Your task to perform on an android device: Show me productivity apps on the Play Store Image 0: 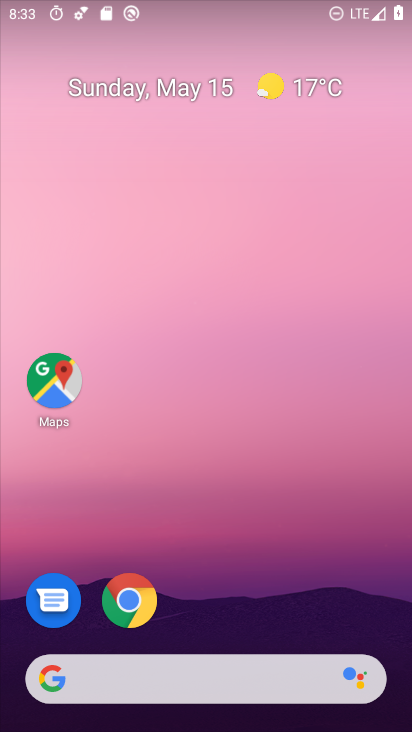
Step 0: drag from (231, 604) to (137, 173)
Your task to perform on an android device: Show me productivity apps on the Play Store Image 1: 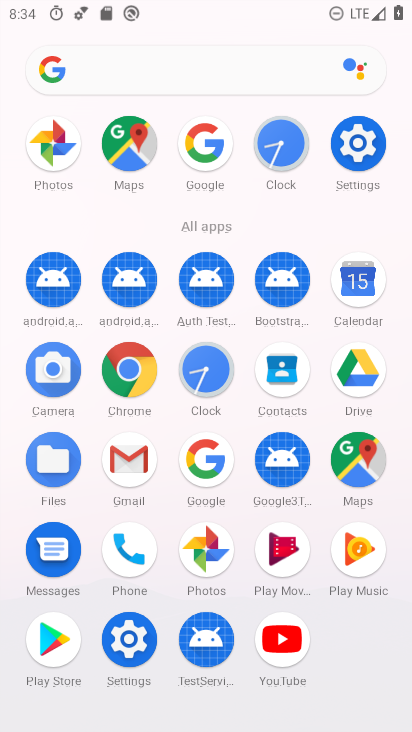
Step 1: click (53, 637)
Your task to perform on an android device: Show me productivity apps on the Play Store Image 2: 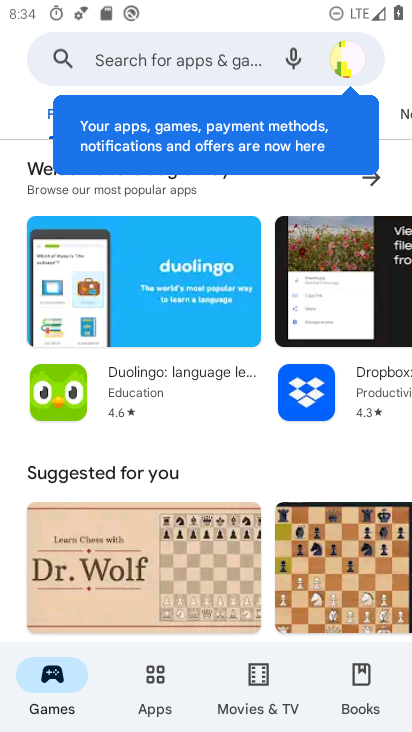
Step 2: click (158, 675)
Your task to perform on an android device: Show me productivity apps on the Play Store Image 3: 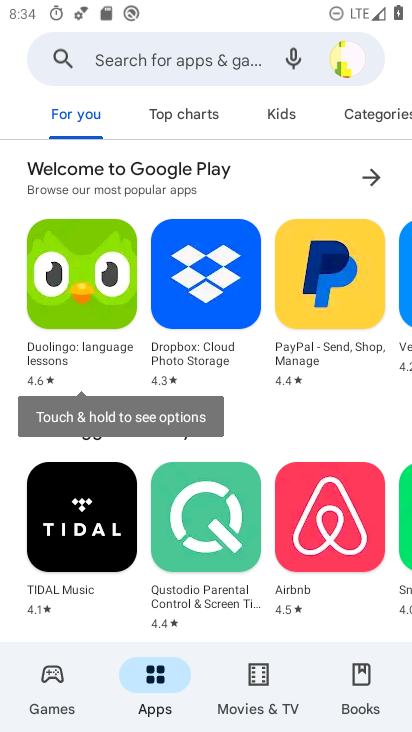
Step 3: click (369, 119)
Your task to perform on an android device: Show me productivity apps on the Play Store Image 4: 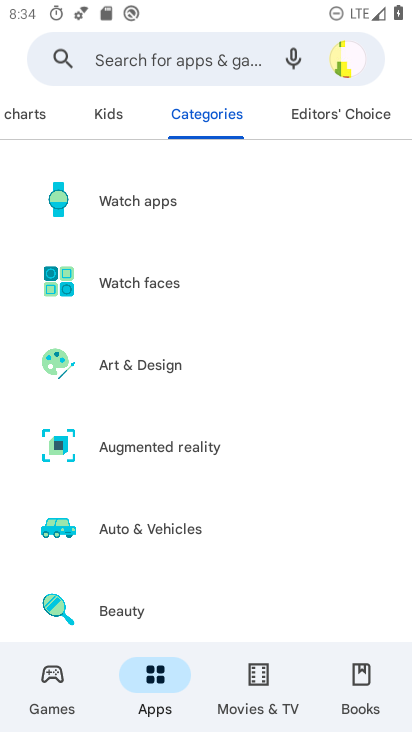
Step 4: drag from (158, 400) to (190, 293)
Your task to perform on an android device: Show me productivity apps on the Play Store Image 5: 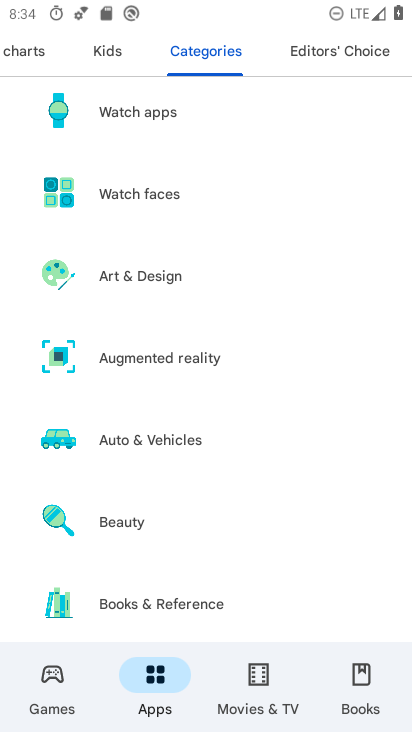
Step 5: drag from (126, 406) to (184, 304)
Your task to perform on an android device: Show me productivity apps on the Play Store Image 6: 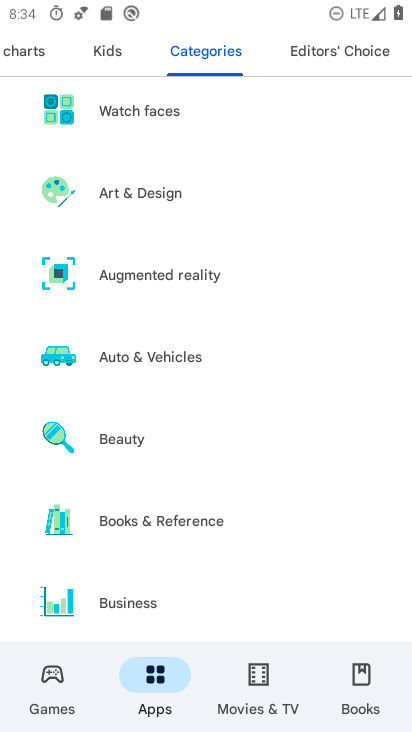
Step 6: drag from (117, 403) to (127, 299)
Your task to perform on an android device: Show me productivity apps on the Play Store Image 7: 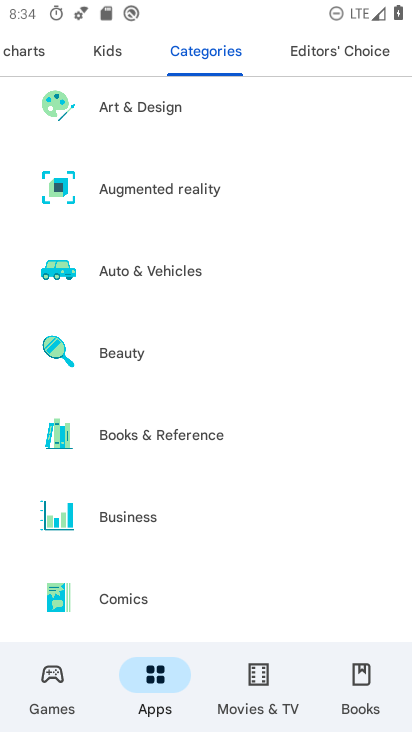
Step 7: drag from (110, 391) to (159, 281)
Your task to perform on an android device: Show me productivity apps on the Play Store Image 8: 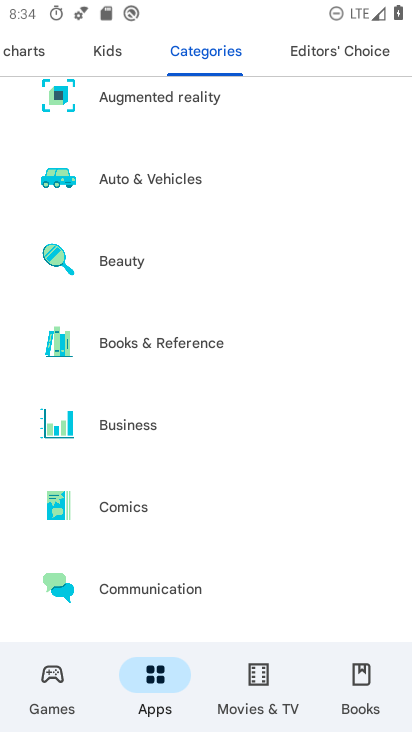
Step 8: drag from (113, 385) to (183, 269)
Your task to perform on an android device: Show me productivity apps on the Play Store Image 9: 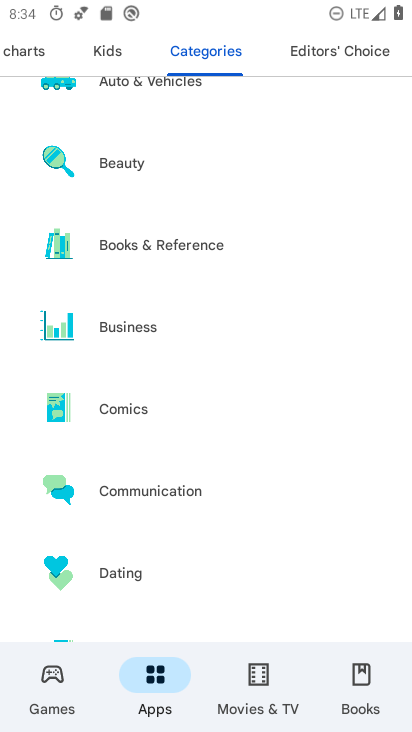
Step 9: drag from (112, 372) to (164, 273)
Your task to perform on an android device: Show me productivity apps on the Play Store Image 10: 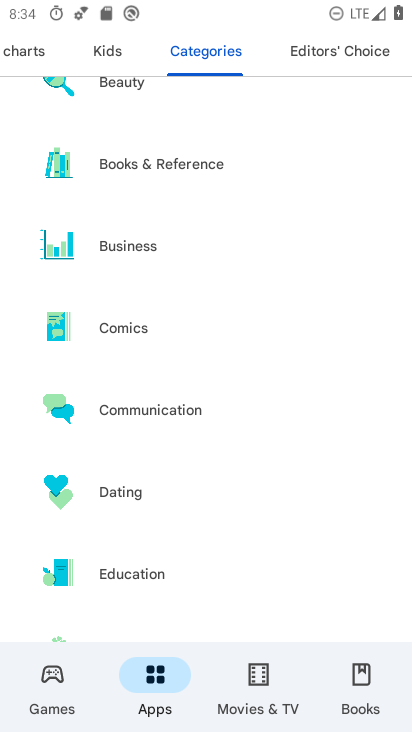
Step 10: drag from (96, 374) to (161, 280)
Your task to perform on an android device: Show me productivity apps on the Play Store Image 11: 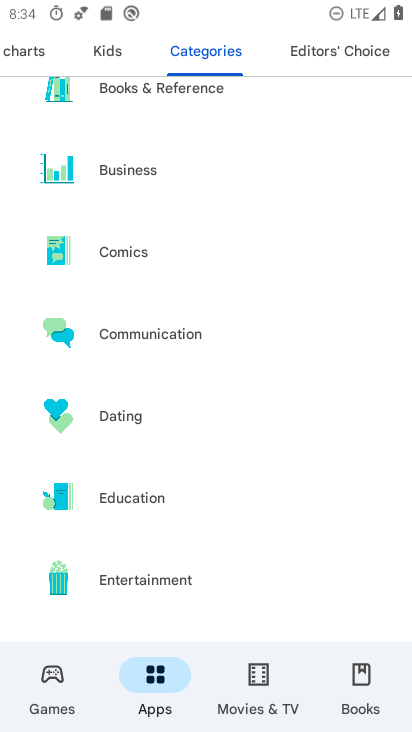
Step 11: drag from (92, 363) to (151, 279)
Your task to perform on an android device: Show me productivity apps on the Play Store Image 12: 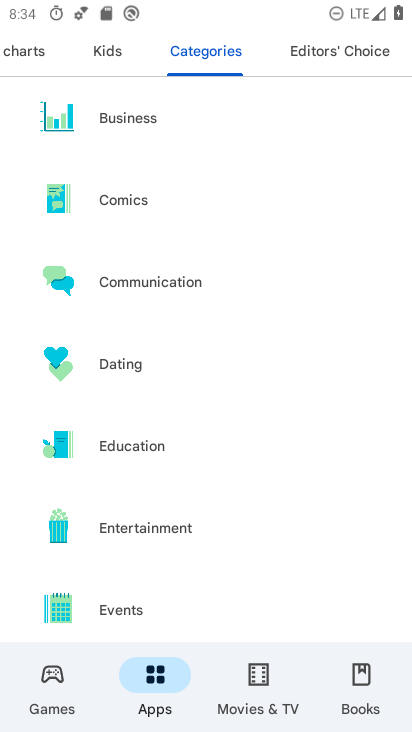
Step 12: drag from (71, 405) to (136, 302)
Your task to perform on an android device: Show me productivity apps on the Play Store Image 13: 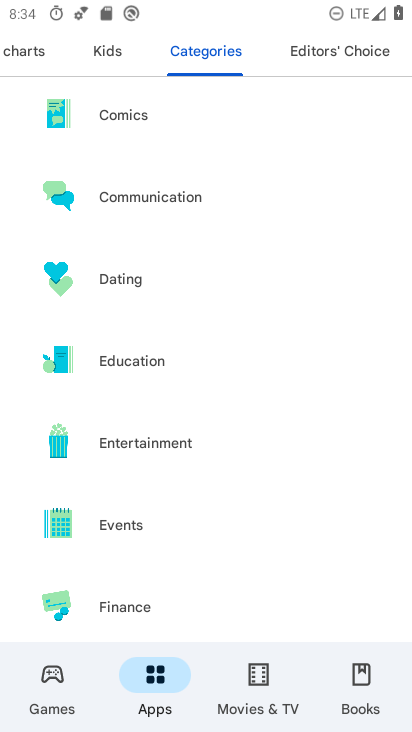
Step 13: drag from (59, 408) to (140, 308)
Your task to perform on an android device: Show me productivity apps on the Play Store Image 14: 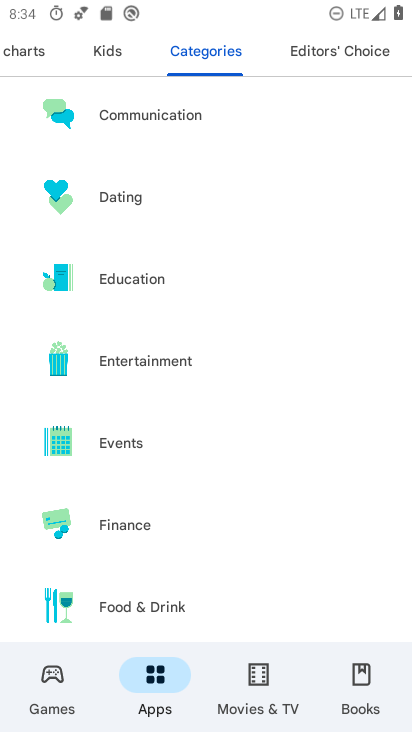
Step 14: drag from (65, 402) to (145, 302)
Your task to perform on an android device: Show me productivity apps on the Play Store Image 15: 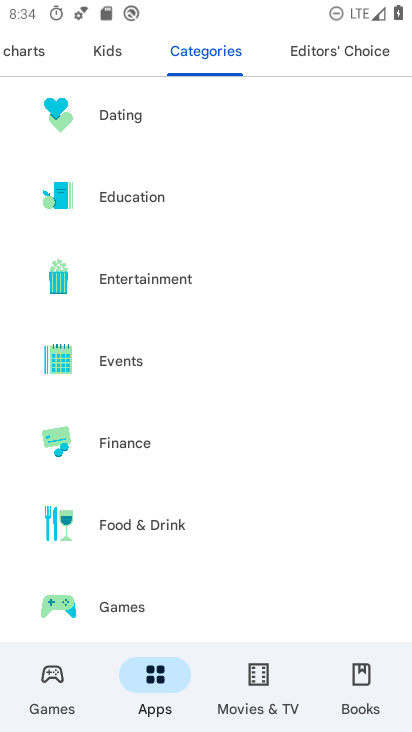
Step 15: drag from (55, 399) to (147, 297)
Your task to perform on an android device: Show me productivity apps on the Play Store Image 16: 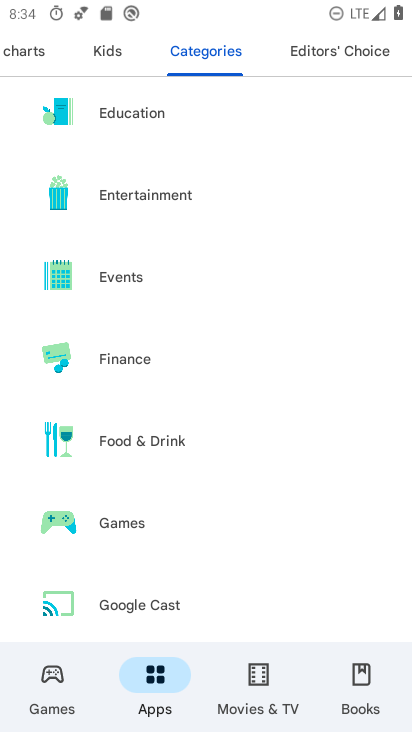
Step 16: drag from (57, 398) to (158, 292)
Your task to perform on an android device: Show me productivity apps on the Play Store Image 17: 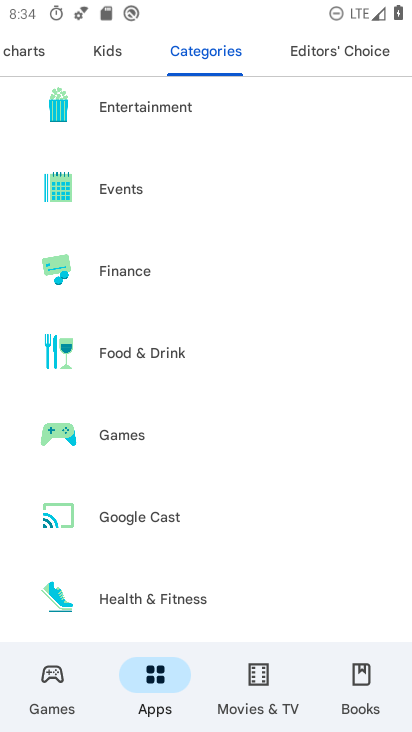
Step 17: drag from (59, 391) to (164, 282)
Your task to perform on an android device: Show me productivity apps on the Play Store Image 18: 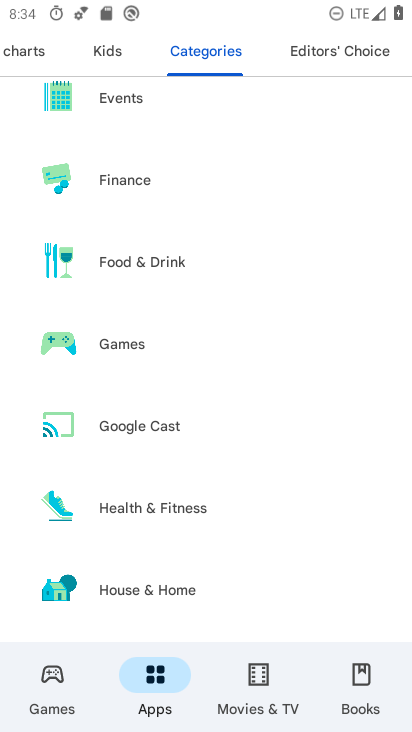
Step 18: drag from (65, 381) to (169, 265)
Your task to perform on an android device: Show me productivity apps on the Play Store Image 19: 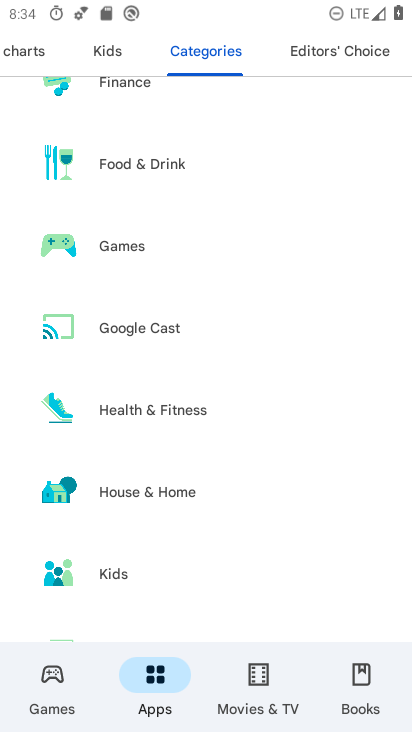
Step 19: drag from (61, 370) to (124, 270)
Your task to perform on an android device: Show me productivity apps on the Play Store Image 20: 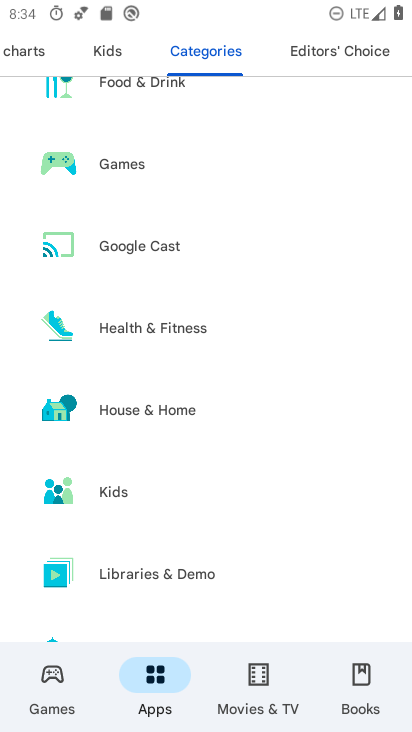
Step 20: drag from (59, 371) to (158, 253)
Your task to perform on an android device: Show me productivity apps on the Play Store Image 21: 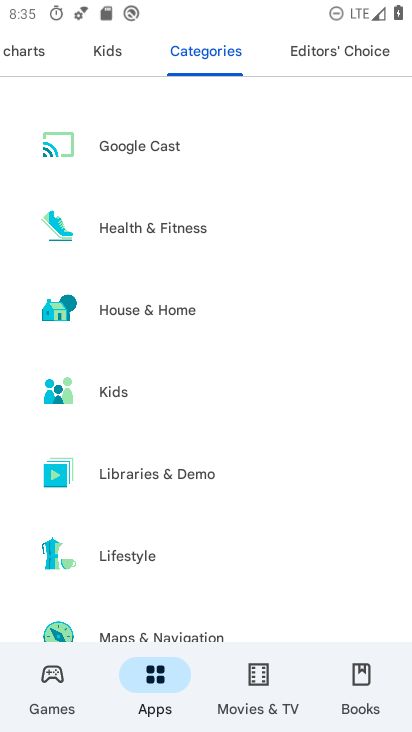
Step 21: drag from (63, 351) to (148, 234)
Your task to perform on an android device: Show me productivity apps on the Play Store Image 22: 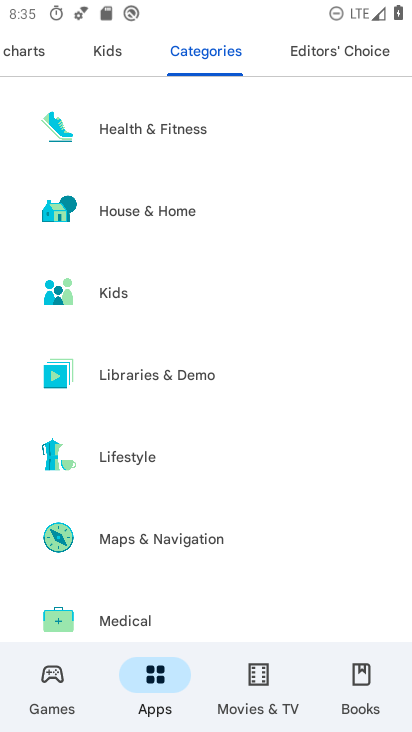
Step 22: drag from (62, 251) to (139, 147)
Your task to perform on an android device: Show me productivity apps on the Play Store Image 23: 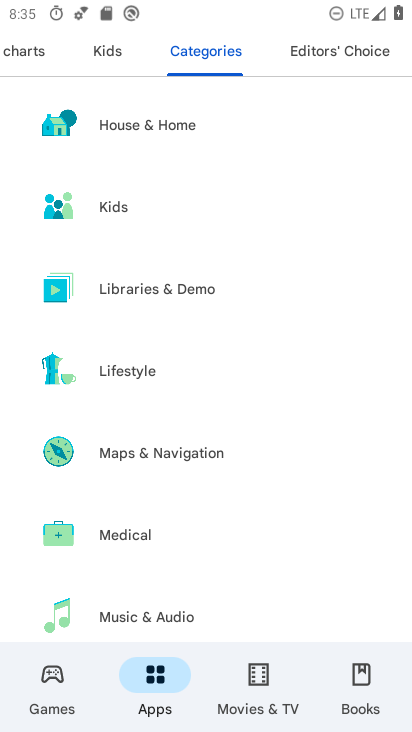
Step 23: drag from (62, 250) to (124, 175)
Your task to perform on an android device: Show me productivity apps on the Play Store Image 24: 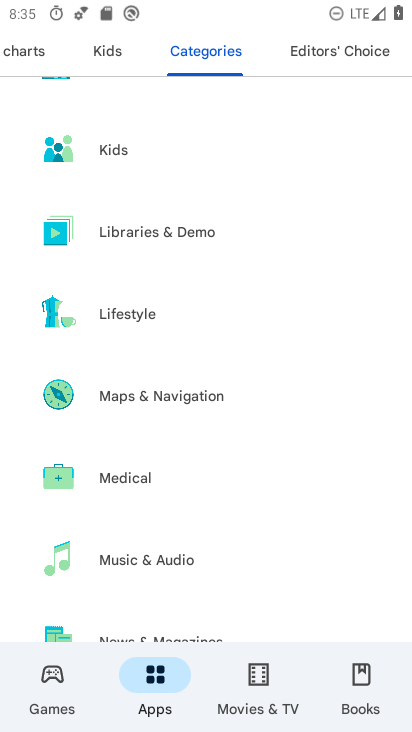
Step 24: drag from (59, 260) to (156, 151)
Your task to perform on an android device: Show me productivity apps on the Play Store Image 25: 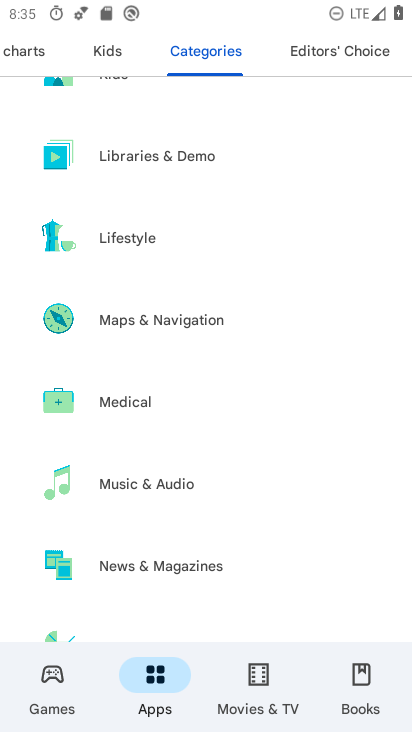
Step 25: drag from (51, 280) to (149, 161)
Your task to perform on an android device: Show me productivity apps on the Play Store Image 26: 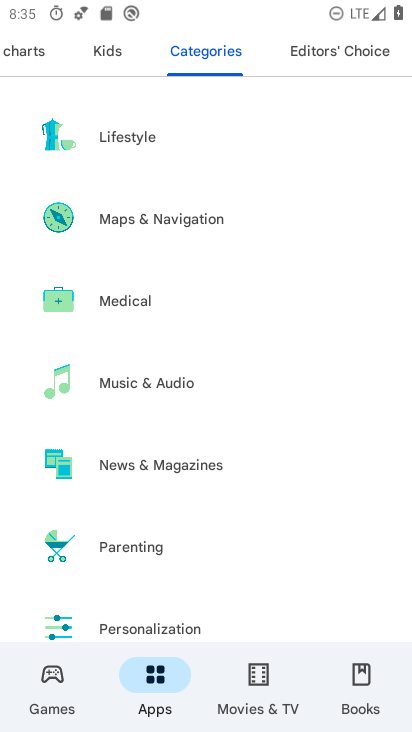
Step 26: drag from (64, 256) to (175, 141)
Your task to perform on an android device: Show me productivity apps on the Play Store Image 27: 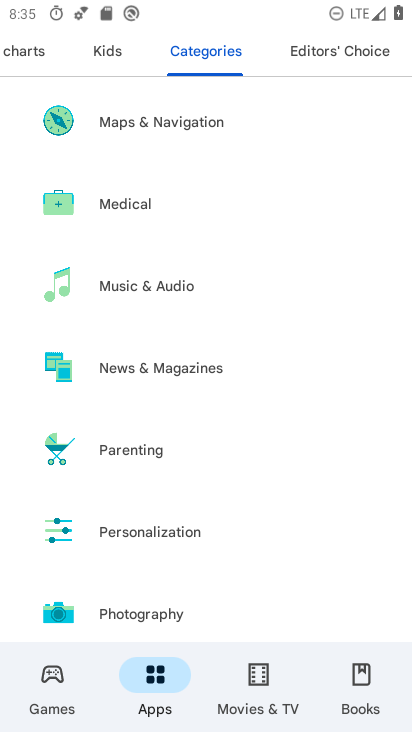
Step 27: drag from (60, 246) to (166, 132)
Your task to perform on an android device: Show me productivity apps on the Play Store Image 28: 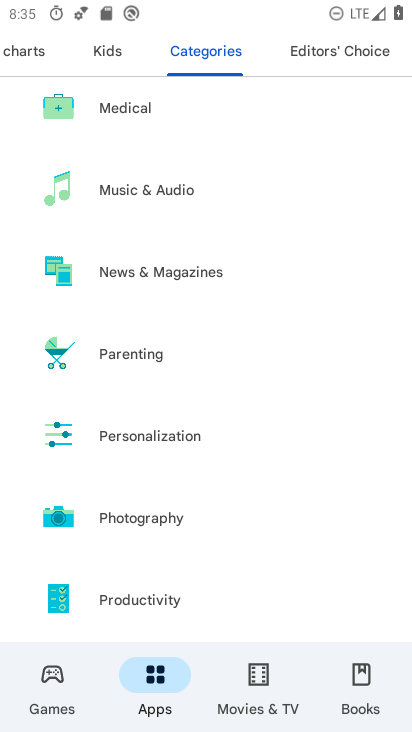
Step 28: drag from (63, 222) to (176, 101)
Your task to perform on an android device: Show me productivity apps on the Play Store Image 29: 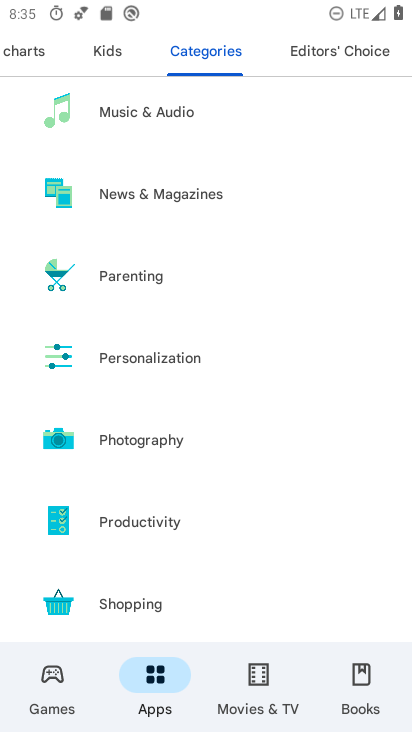
Step 29: drag from (60, 233) to (195, 91)
Your task to perform on an android device: Show me productivity apps on the Play Store Image 30: 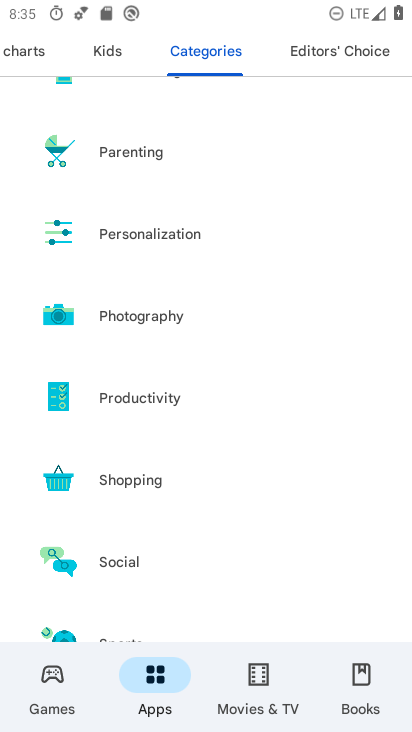
Step 30: click (123, 393)
Your task to perform on an android device: Show me productivity apps on the Play Store Image 31: 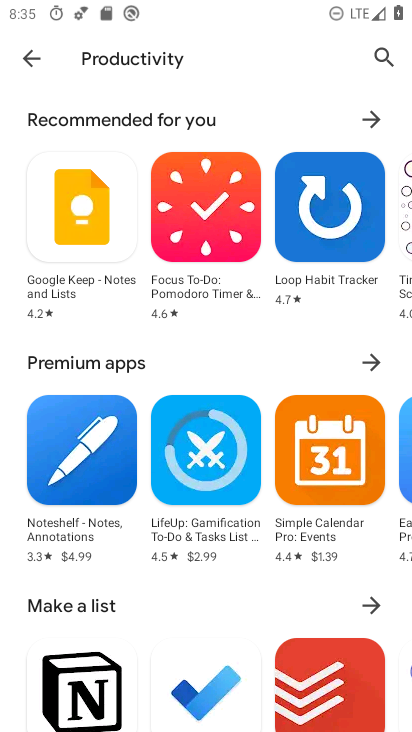
Step 31: task complete